Your task to perform on an android device: Go to Google maps Image 0: 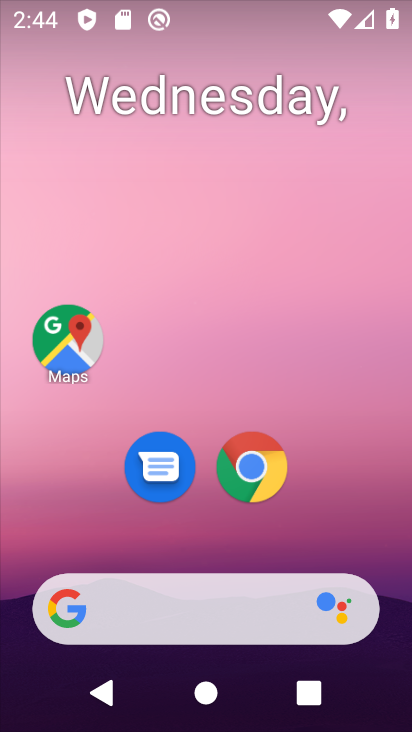
Step 0: click (71, 350)
Your task to perform on an android device: Go to Google maps Image 1: 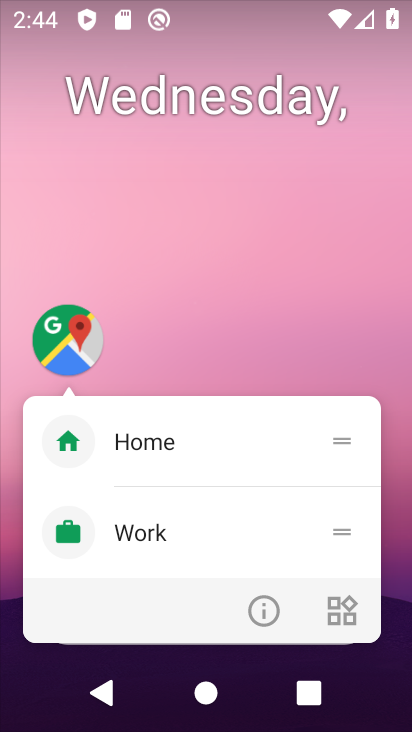
Step 1: click (88, 351)
Your task to perform on an android device: Go to Google maps Image 2: 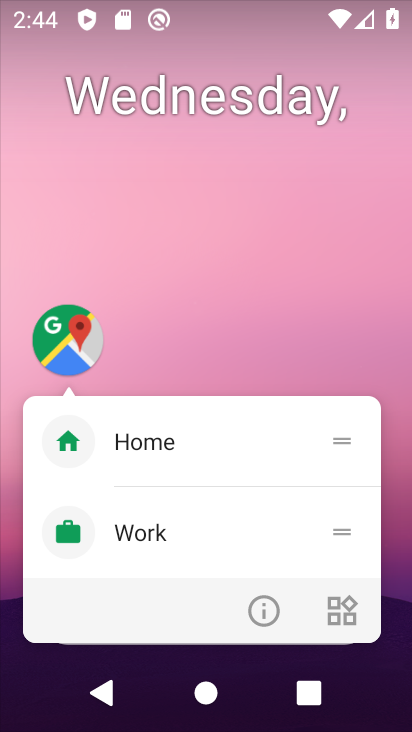
Step 2: click (88, 351)
Your task to perform on an android device: Go to Google maps Image 3: 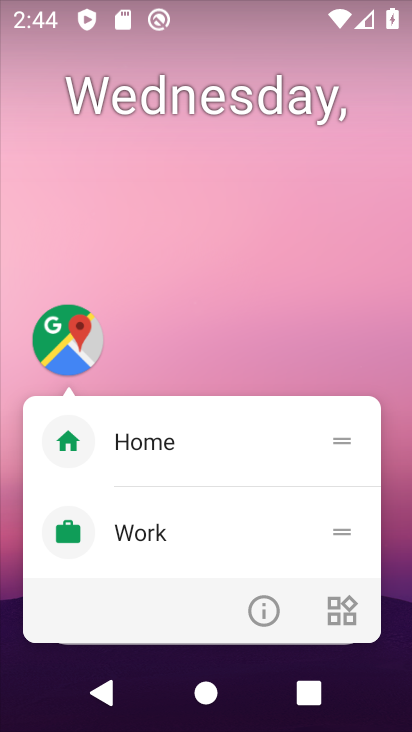
Step 3: click (88, 351)
Your task to perform on an android device: Go to Google maps Image 4: 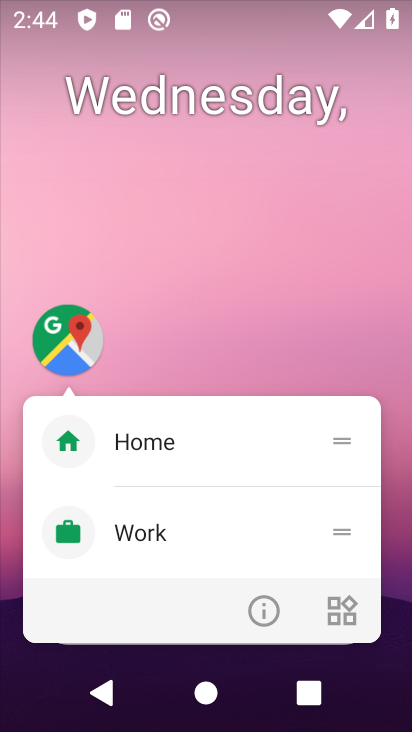
Step 4: click (77, 340)
Your task to perform on an android device: Go to Google maps Image 5: 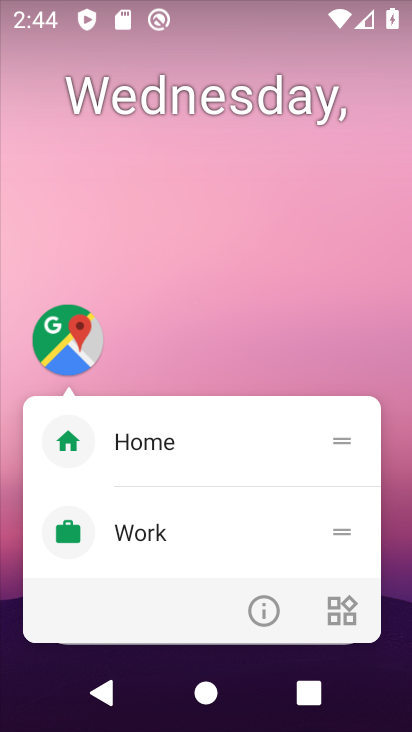
Step 5: click (55, 315)
Your task to perform on an android device: Go to Google maps Image 6: 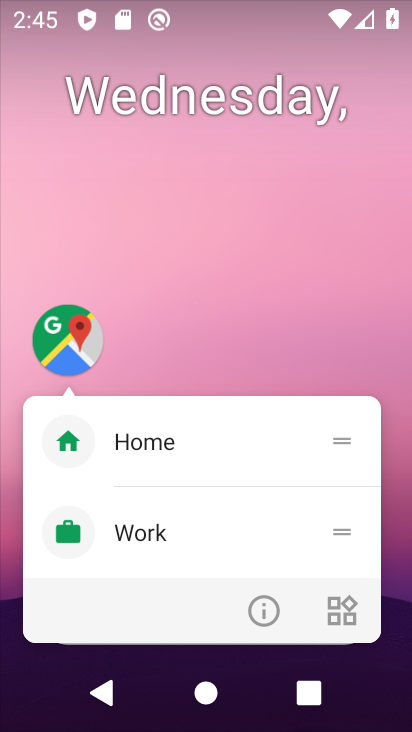
Step 6: click (55, 315)
Your task to perform on an android device: Go to Google maps Image 7: 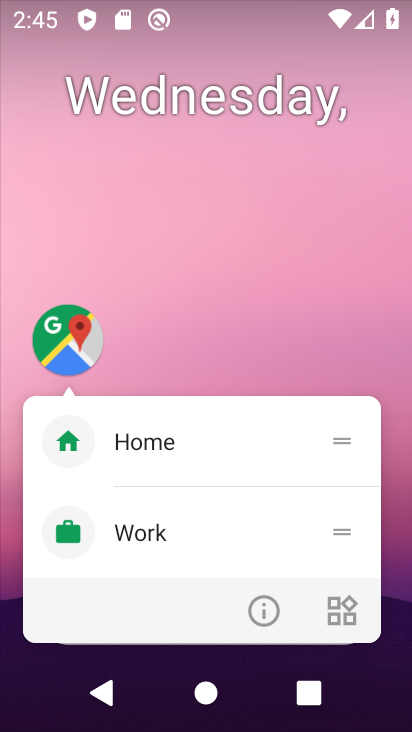
Step 7: click (53, 304)
Your task to perform on an android device: Go to Google maps Image 8: 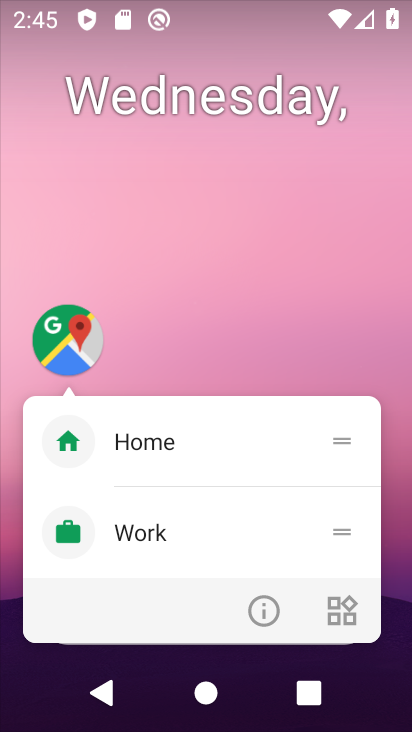
Step 8: click (53, 304)
Your task to perform on an android device: Go to Google maps Image 9: 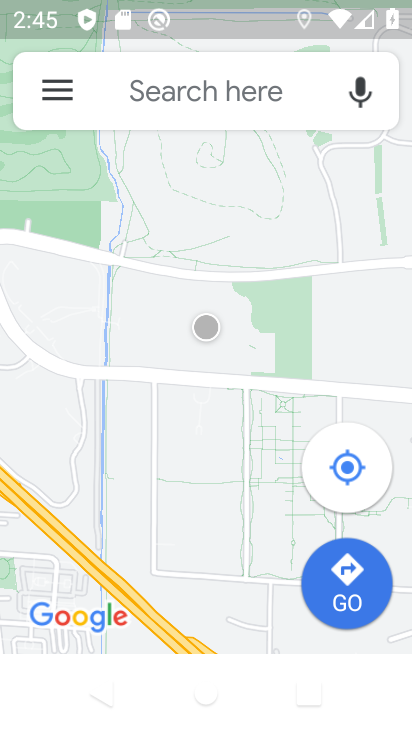
Step 9: task complete